Your task to perform on an android device: toggle sleep mode Image 0: 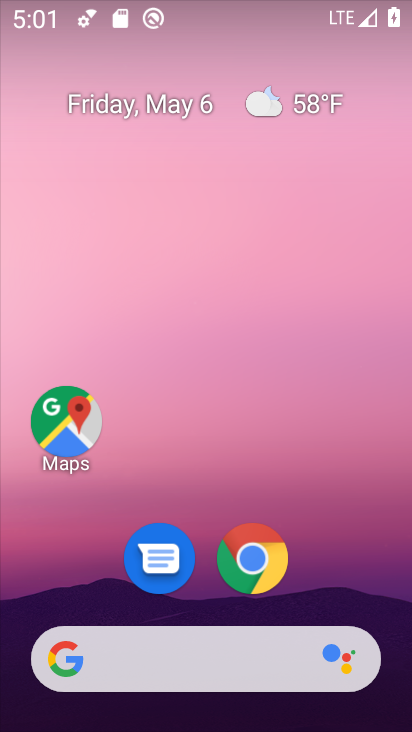
Step 0: drag from (313, 630) to (333, 65)
Your task to perform on an android device: toggle sleep mode Image 1: 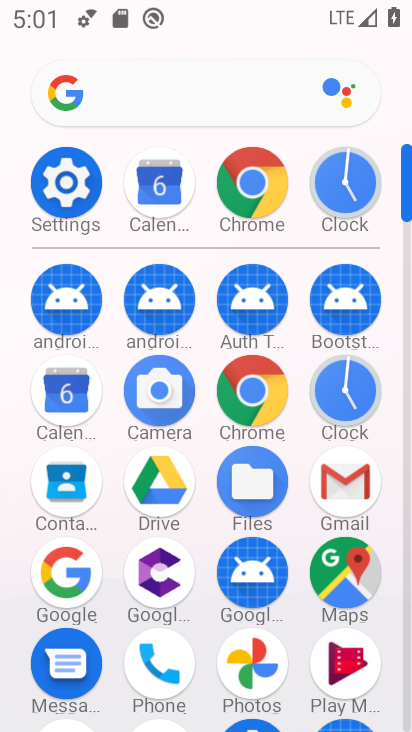
Step 1: click (54, 190)
Your task to perform on an android device: toggle sleep mode Image 2: 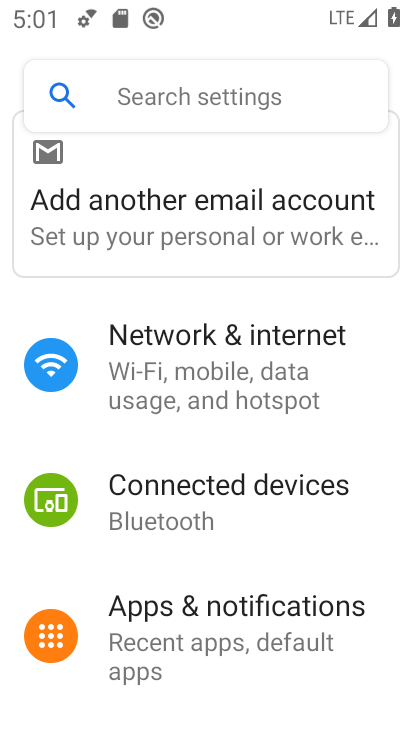
Step 2: drag from (218, 651) to (197, 86)
Your task to perform on an android device: toggle sleep mode Image 3: 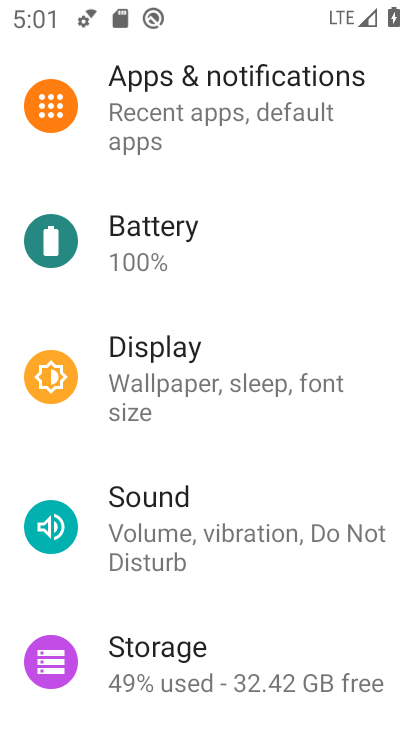
Step 3: click (239, 380)
Your task to perform on an android device: toggle sleep mode Image 4: 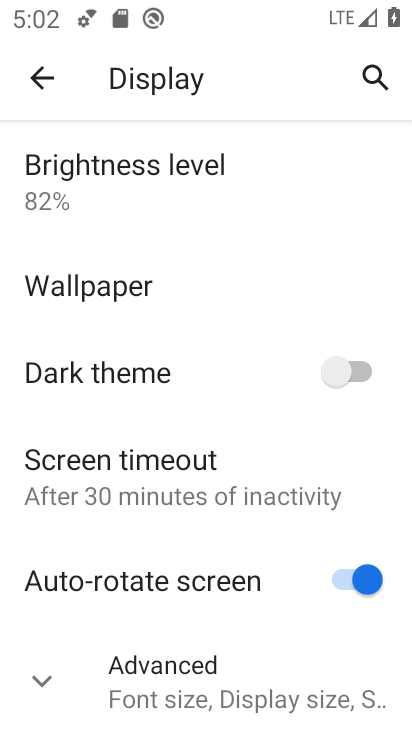
Step 4: task complete